Your task to perform on an android device: Go to notification settings Image 0: 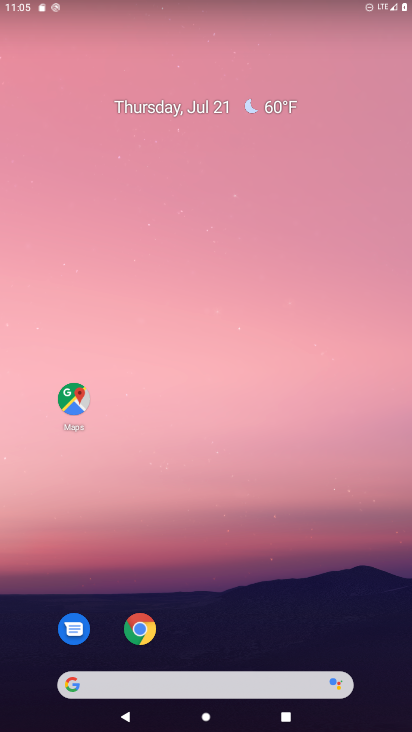
Step 0: press home button
Your task to perform on an android device: Go to notification settings Image 1: 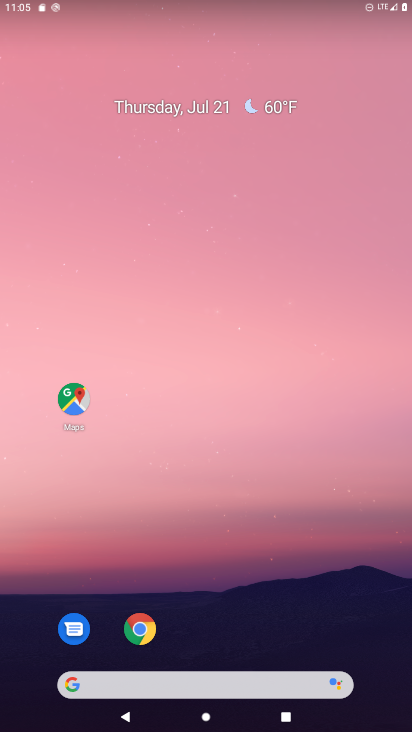
Step 1: drag from (279, 596) to (317, 102)
Your task to perform on an android device: Go to notification settings Image 2: 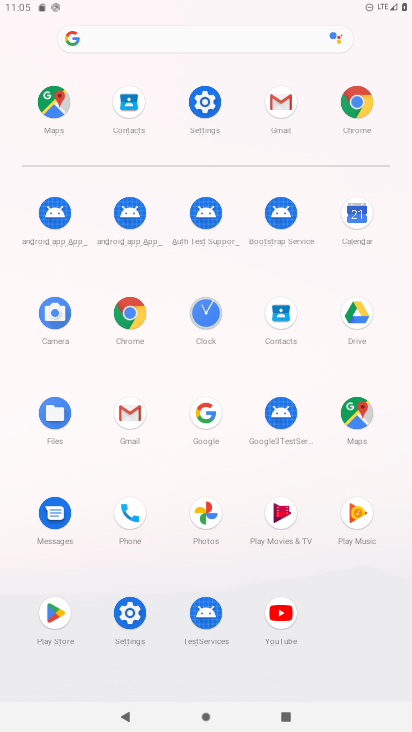
Step 2: click (208, 97)
Your task to perform on an android device: Go to notification settings Image 3: 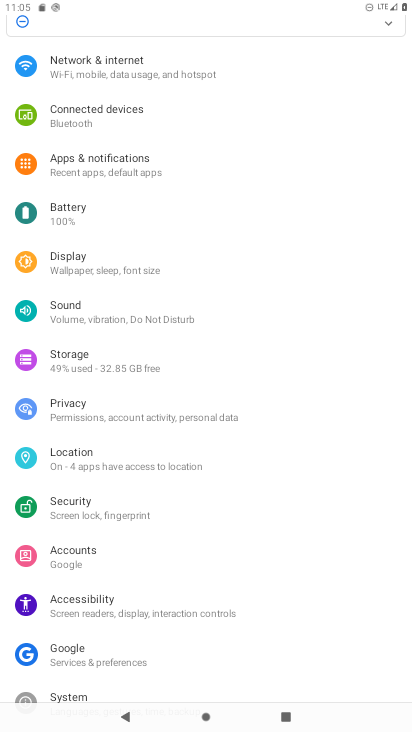
Step 3: click (96, 161)
Your task to perform on an android device: Go to notification settings Image 4: 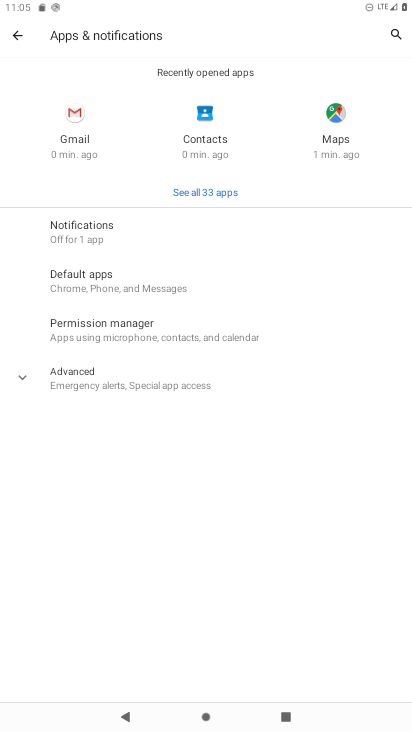
Step 4: click (88, 224)
Your task to perform on an android device: Go to notification settings Image 5: 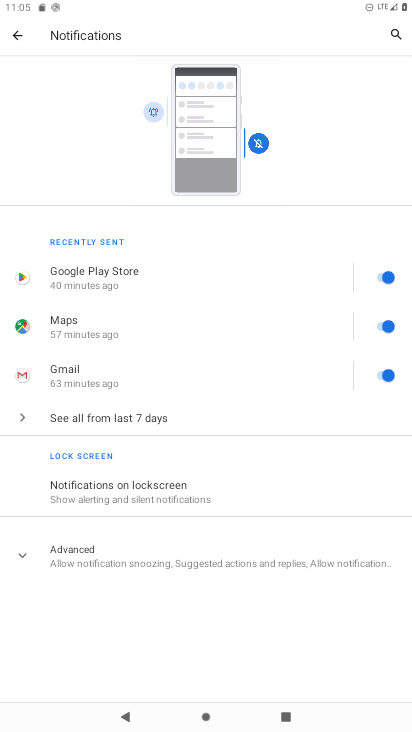
Step 5: task complete